Your task to perform on an android device: Open calendar and show me the first week of next month Image 0: 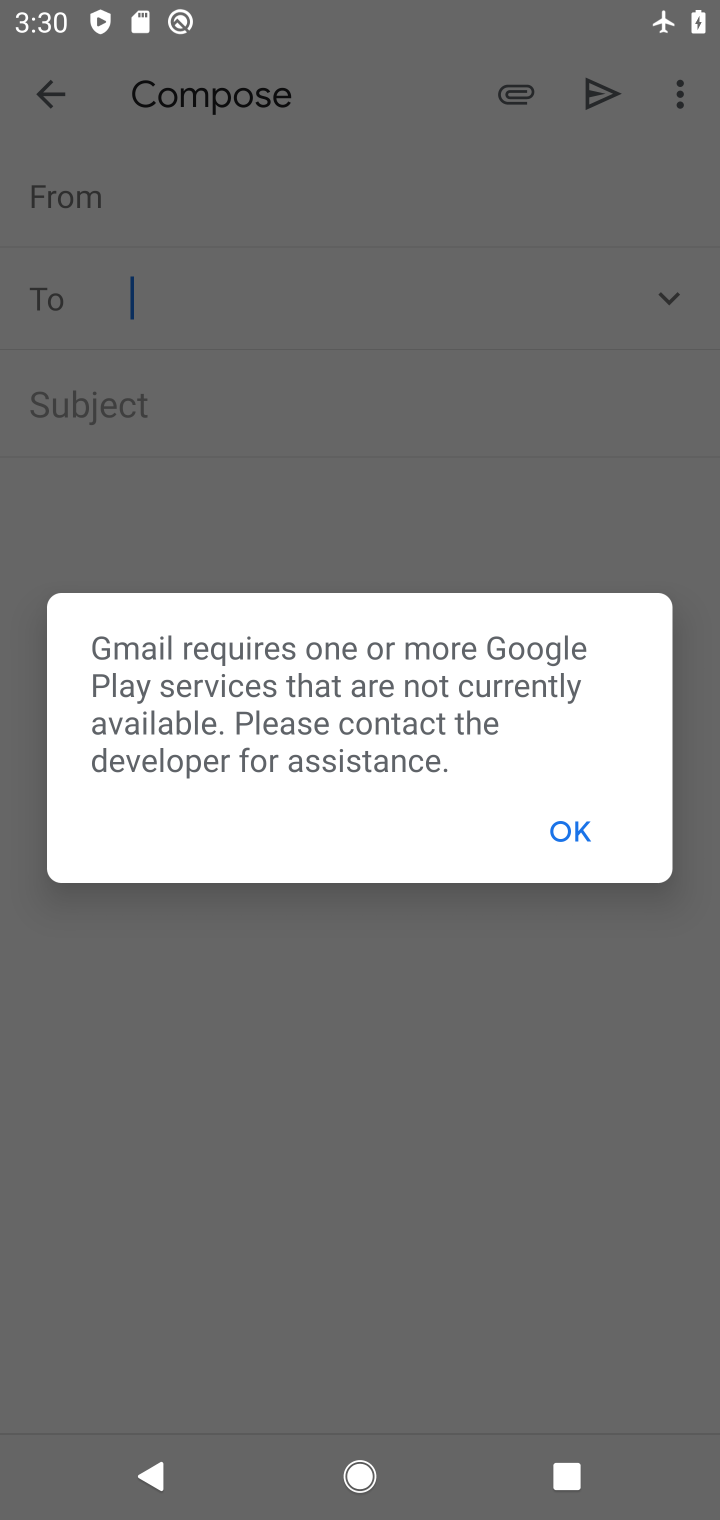
Step 0: press home button
Your task to perform on an android device: Open calendar and show me the first week of next month Image 1: 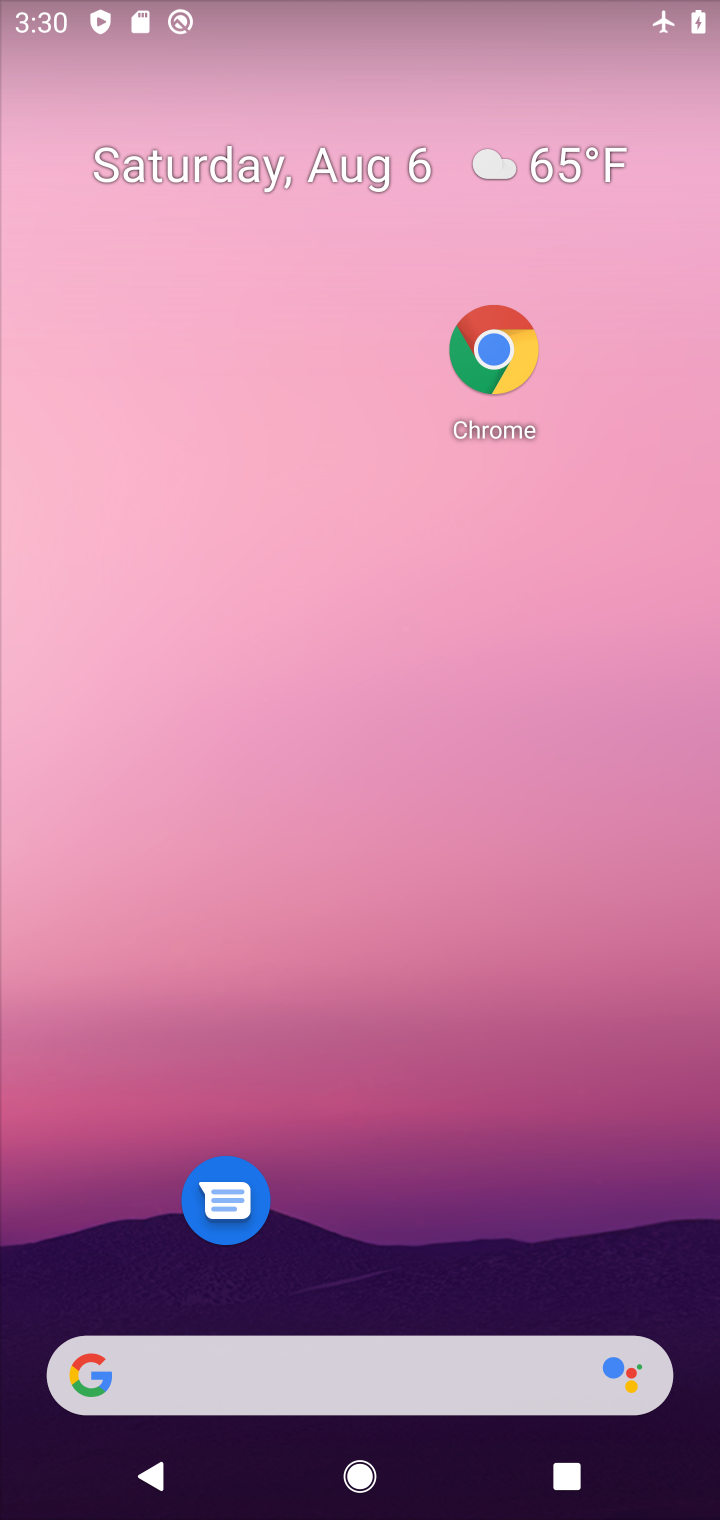
Step 1: drag from (441, 1289) to (520, 54)
Your task to perform on an android device: Open calendar and show me the first week of next month Image 2: 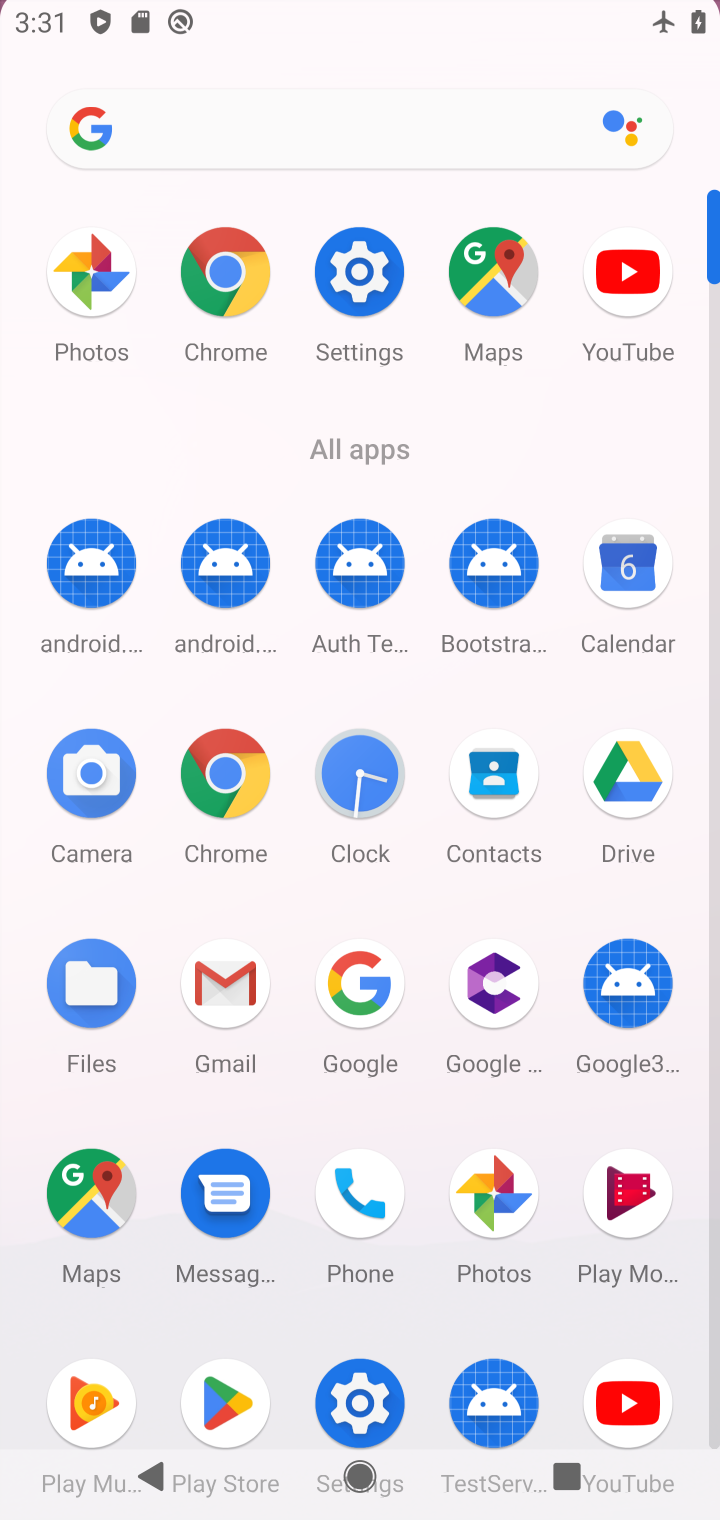
Step 2: click (612, 583)
Your task to perform on an android device: Open calendar and show me the first week of next month Image 3: 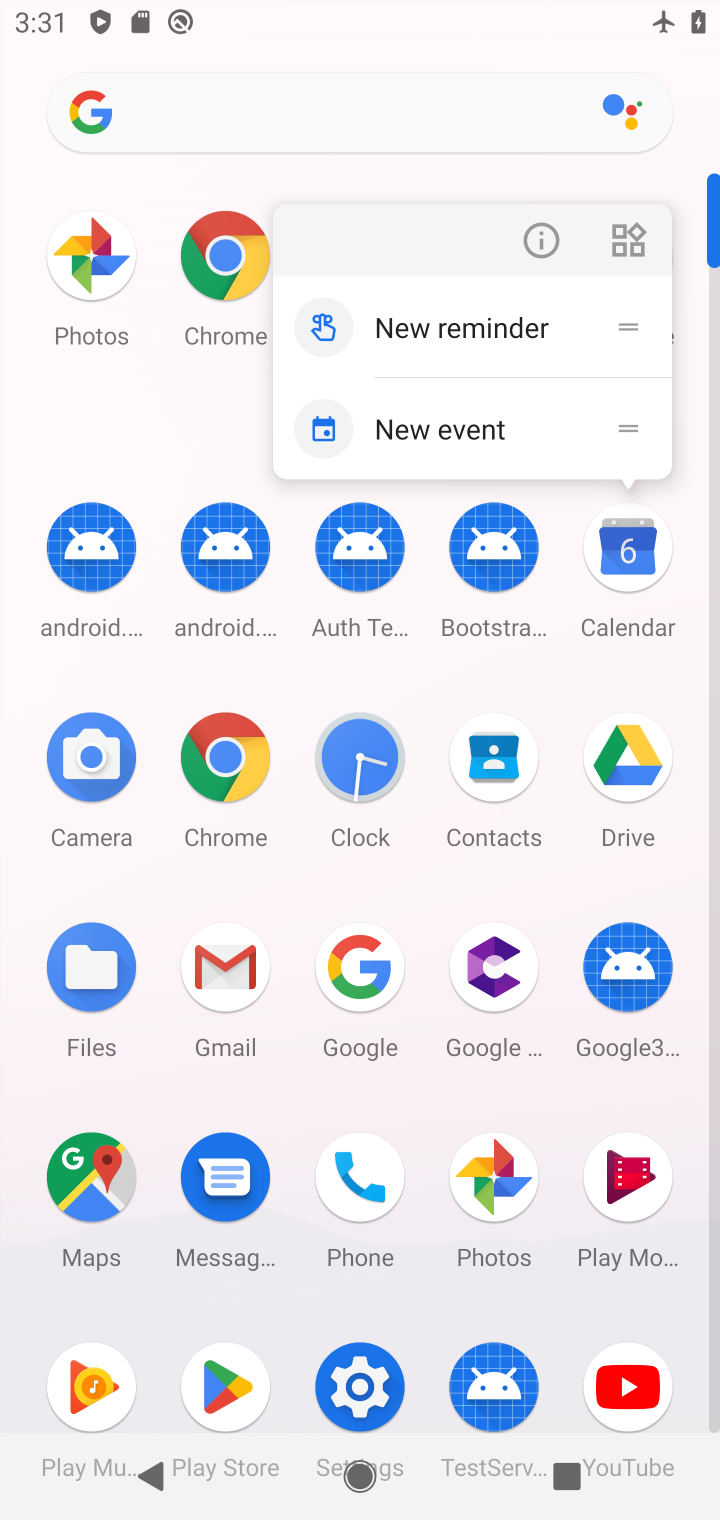
Step 3: click (608, 574)
Your task to perform on an android device: Open calendar and show me the first week of next month Image 4: 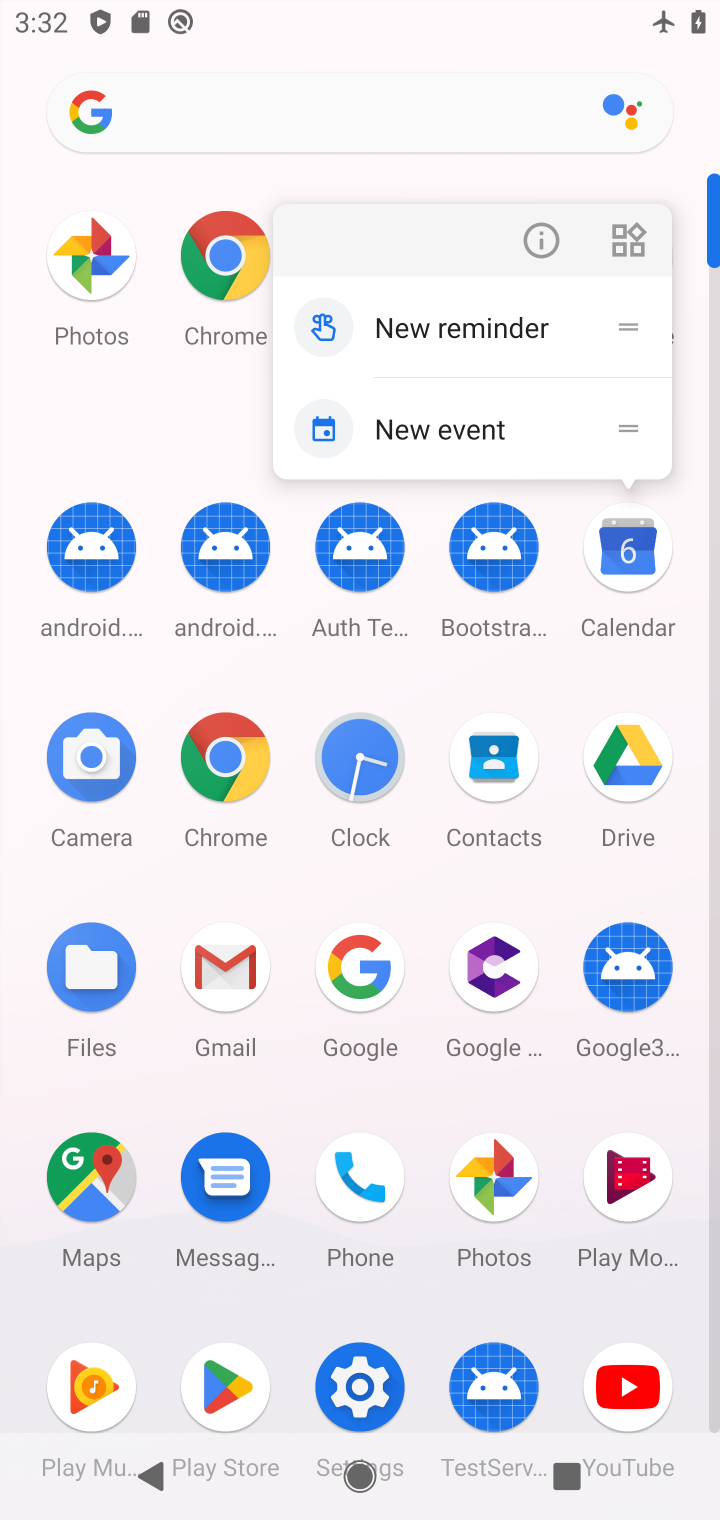
Step 4: click (364, 1379)
Your task to perform on an android device: Open calendar and show me the first week of next month Image 5: 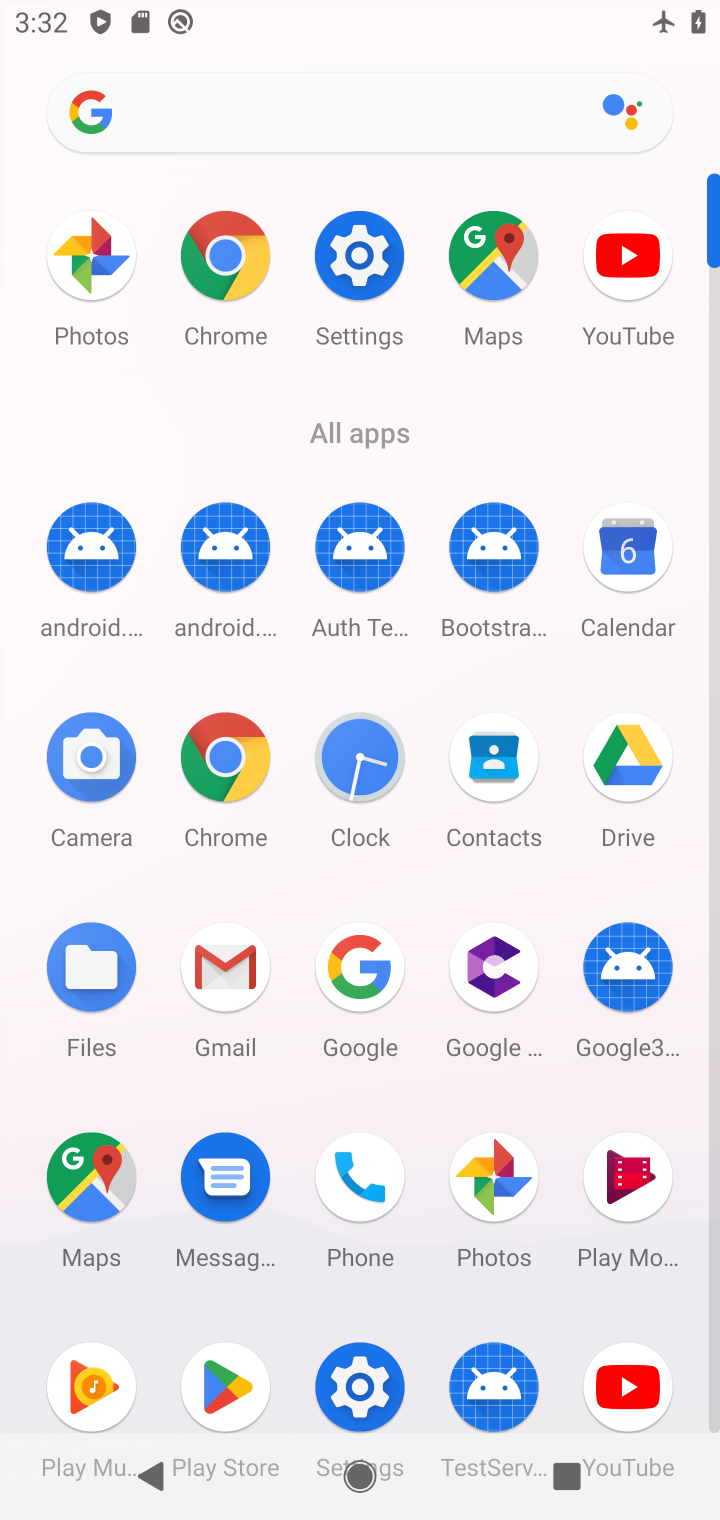
Step 5: click (628, 544)
Your task to perform on an android device: Open calendar and show me the first week of next month Image 6: 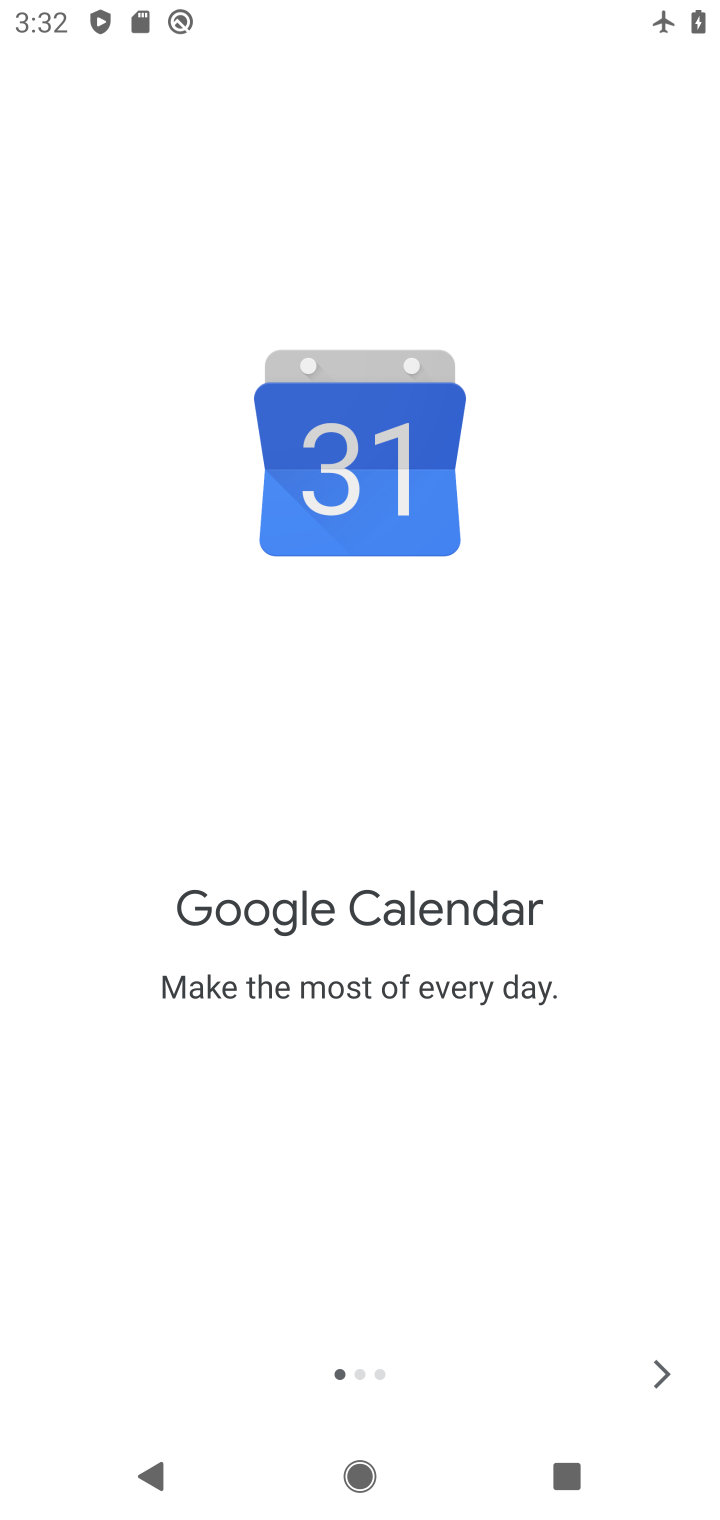
Step 6: click (634, 1384)
Your task to perform on an android device: Open calendar and show me the first week of next month Image 7: 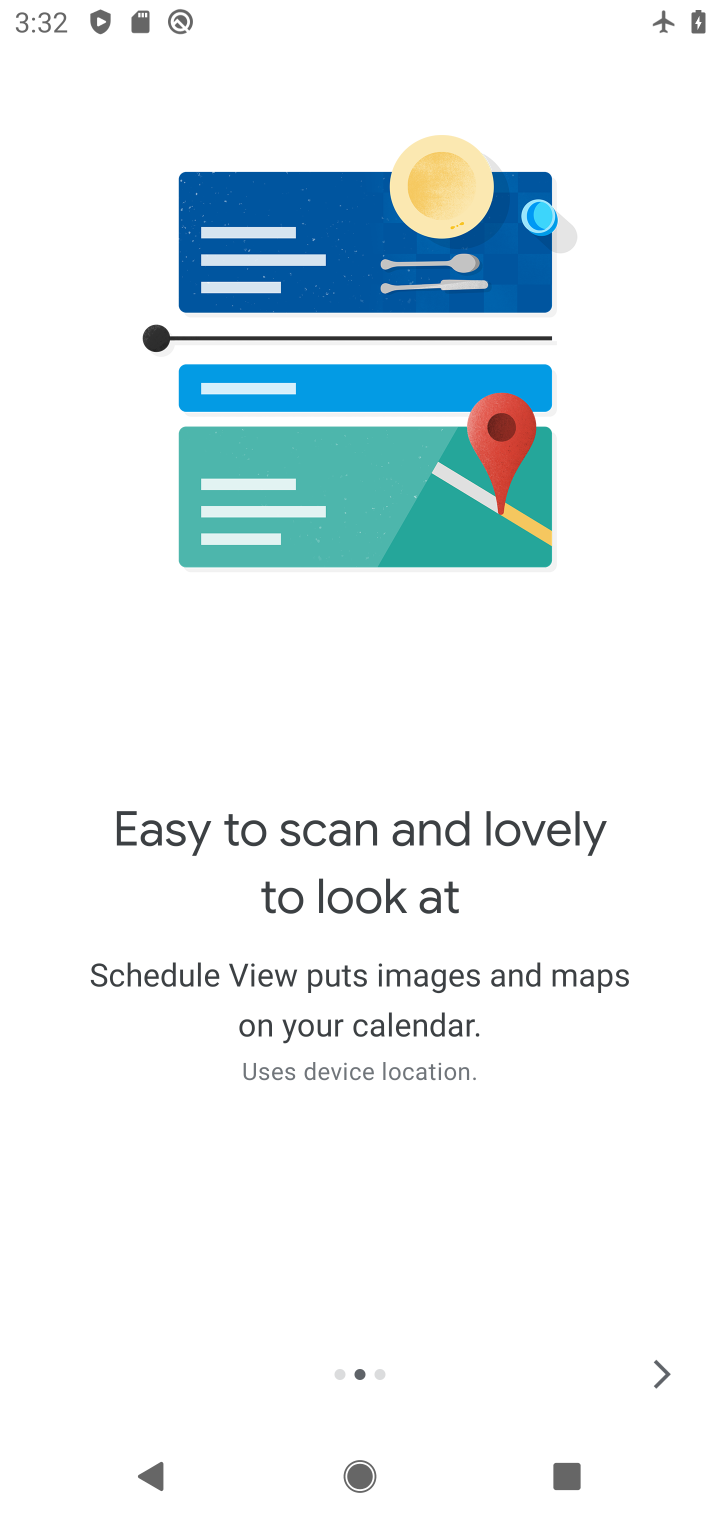
Step 7: click (645, 1381)
Your task to perform on an android device: Open calendar and show me the first week of next month Image 8: 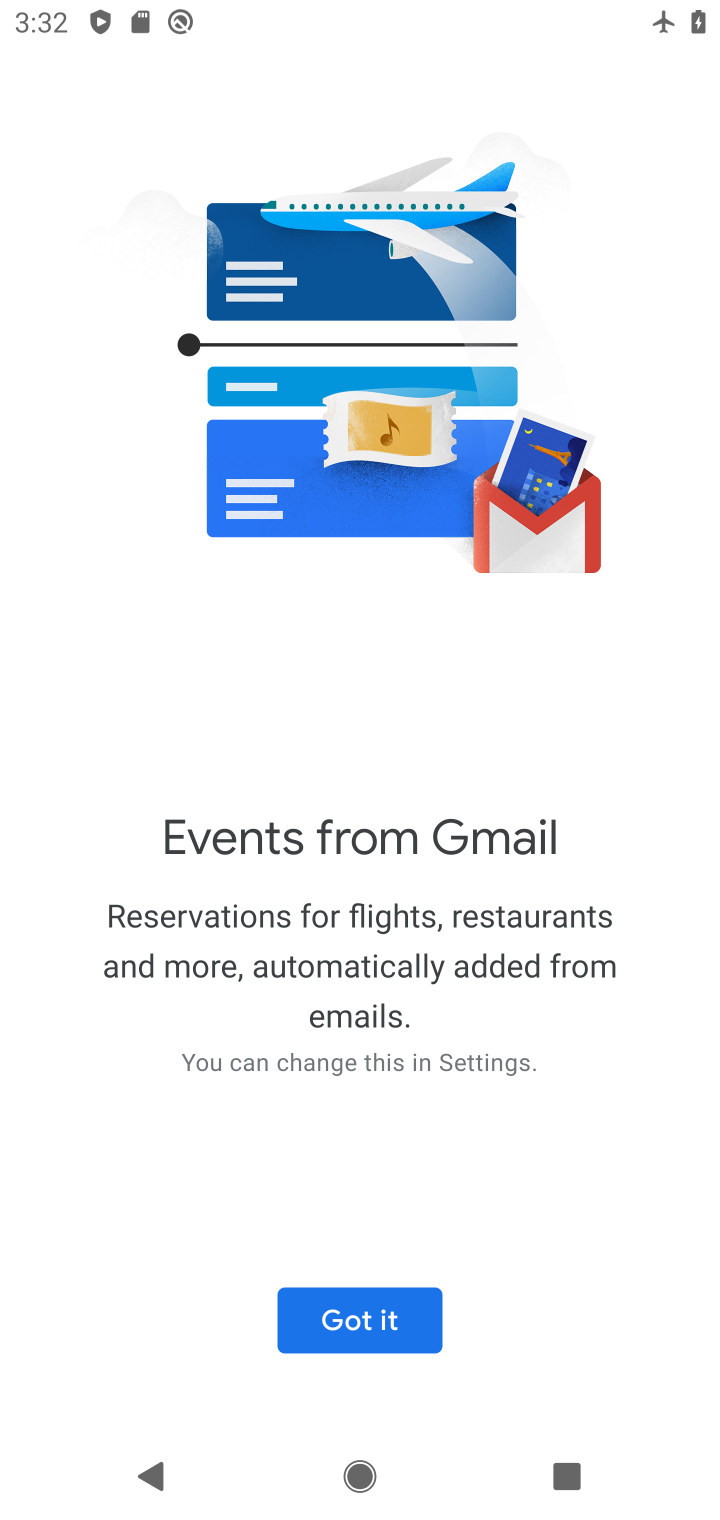
Step 8: click (398, 1331)
Your task to perform on an android device: Open calendar and show me the first week of next month Image 9: 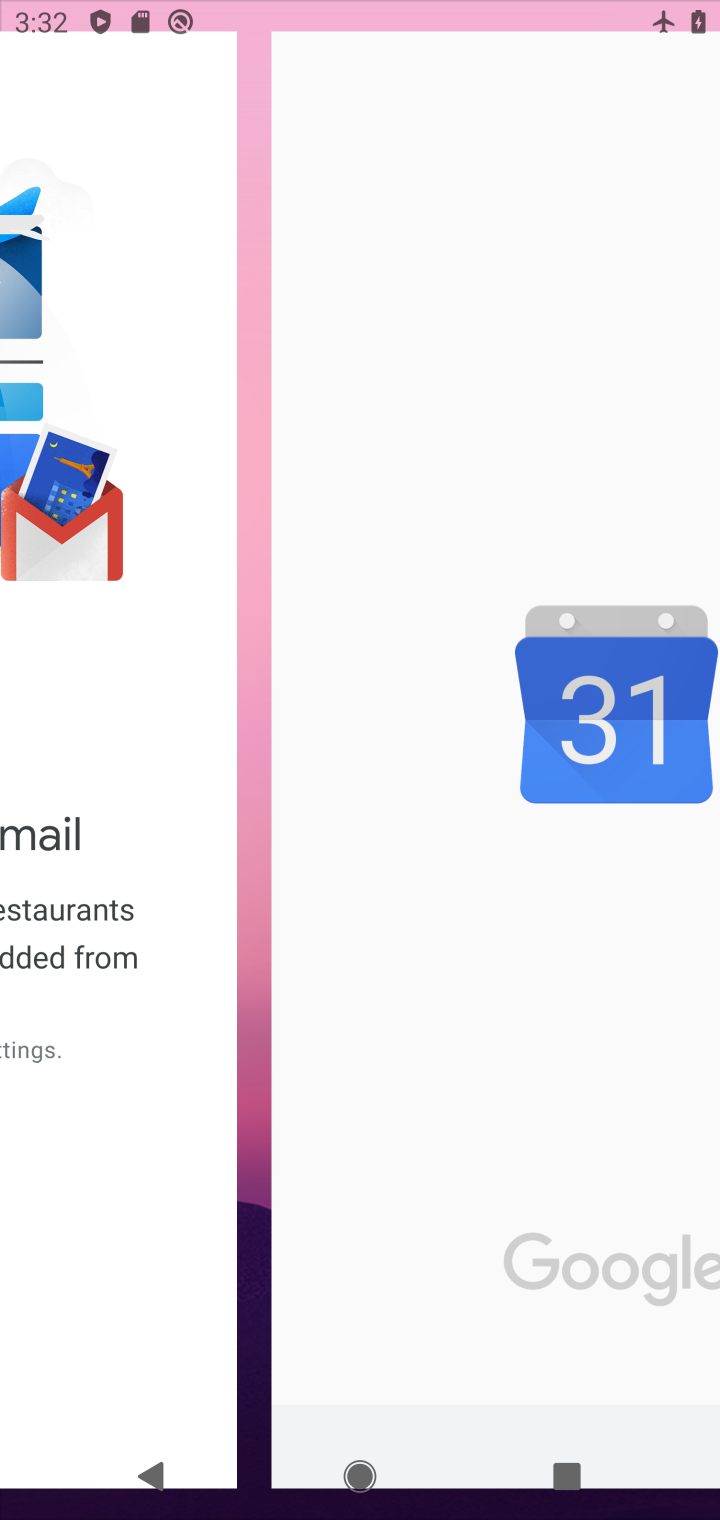
Step 9: click (398, 1331)
Your task to perform on an android device: Open calendar and show me the first week of next month Image 10: 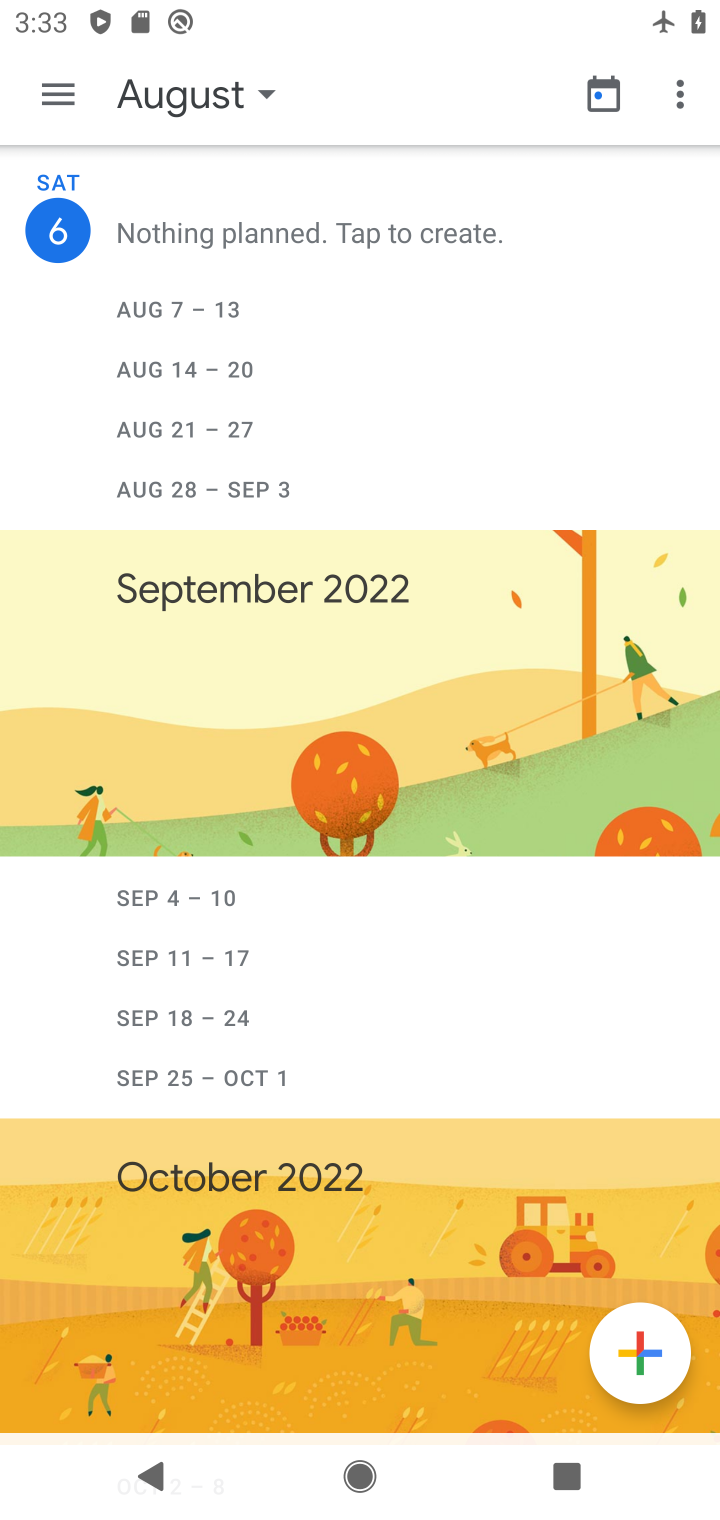
Step 10: click (225, 107)
Your task to perform on an android device: Open calendar and show me the first week of next month Image 11: 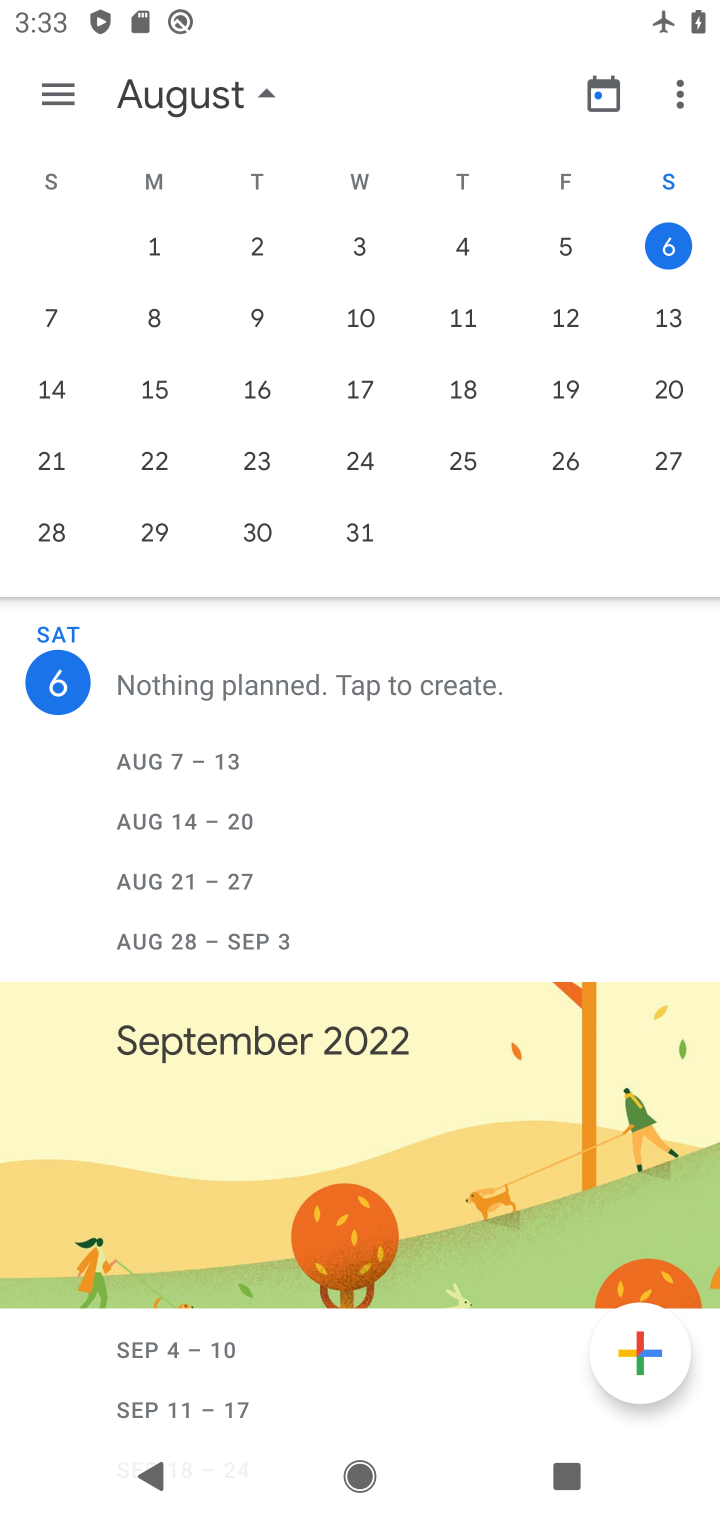
Step 11: drag from (638, 472) to (77, 411)
Your task to perform on an android device: Open calendar and show me the first week of next month Image 12: 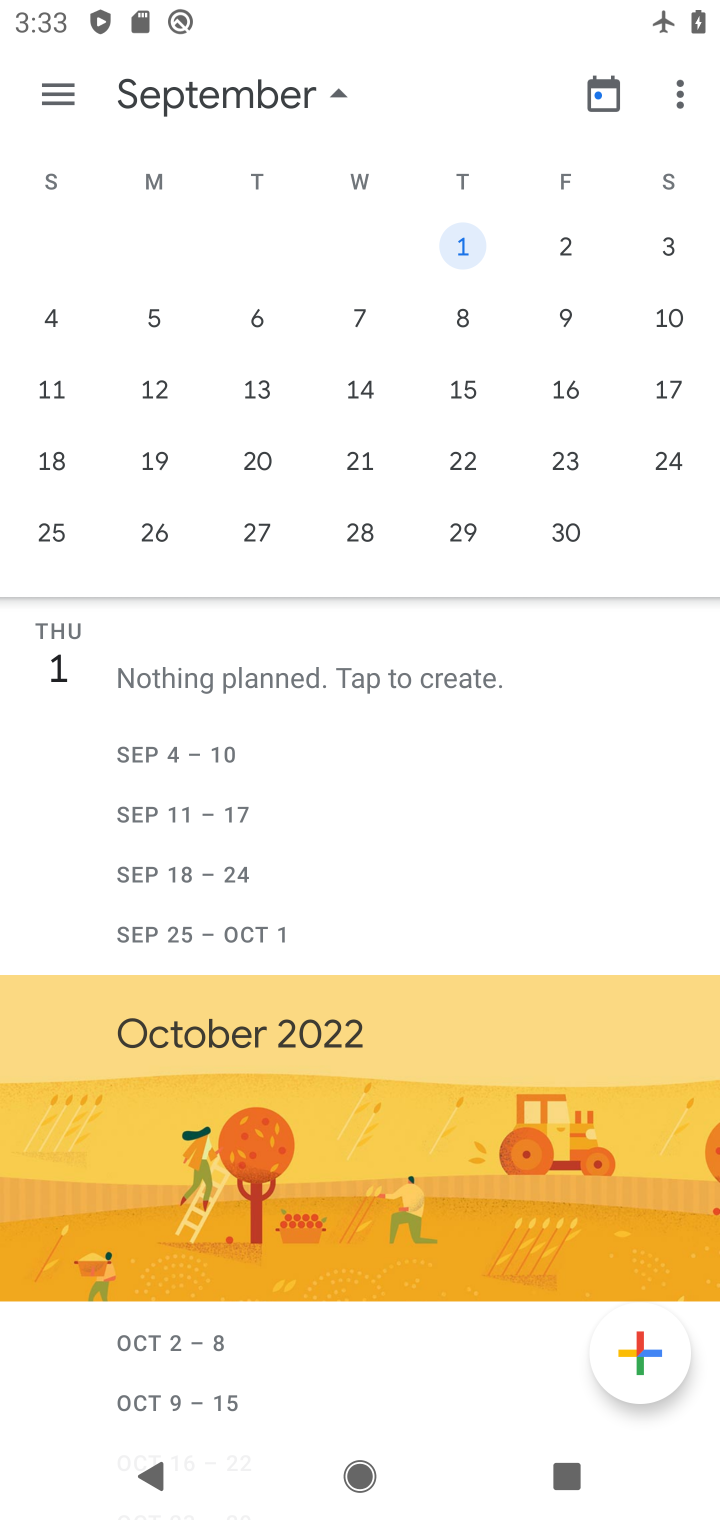
Step 12: click (461, 242)
Your task to perform on an android device: Open calendar and show me the first week of next month Image 13: 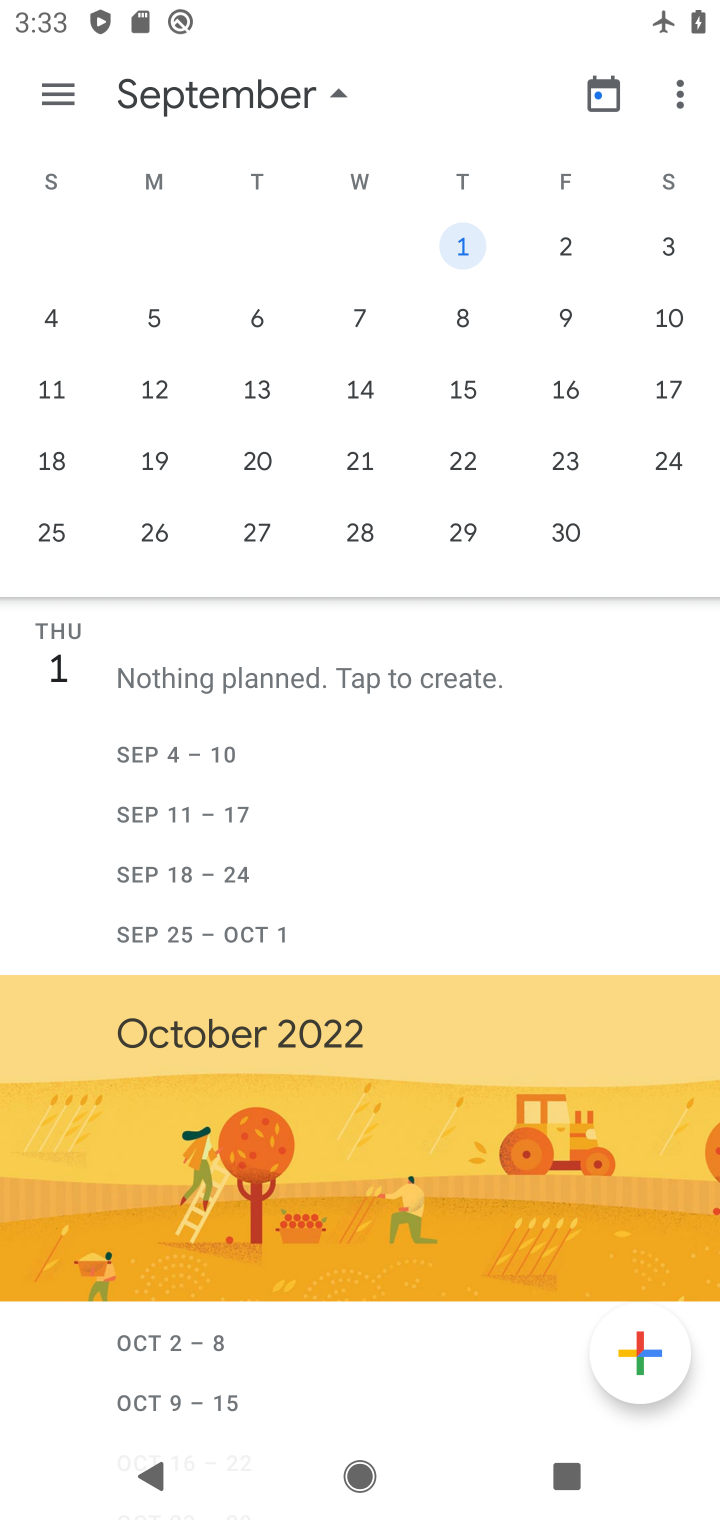
Step 13: task complete